Your task to perform on an android device: Go to internet settings Image 0: 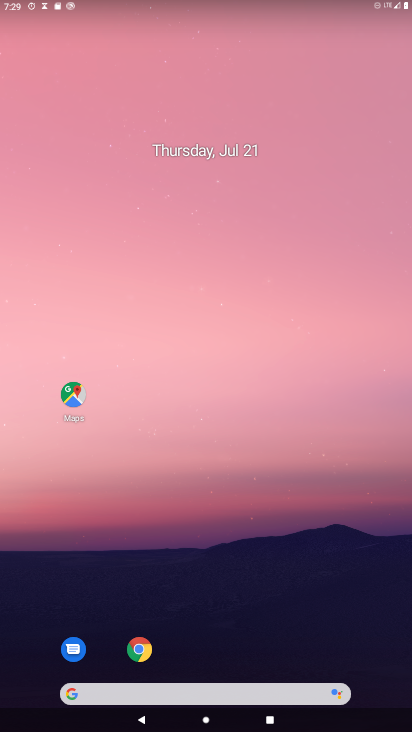
Step 0: drag from (346, 625) to (182, 30)
Your task to perform on an android device: Go to internet settings Image 1: 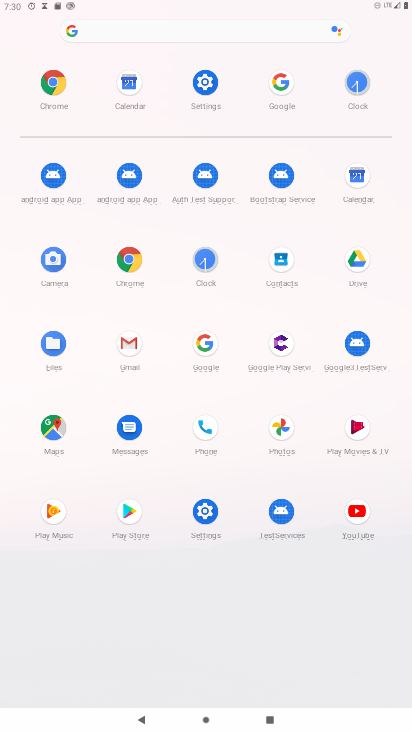
Step 1: click (200, 519)
Your task to perform on an android device: Go to internet settings Image 2: 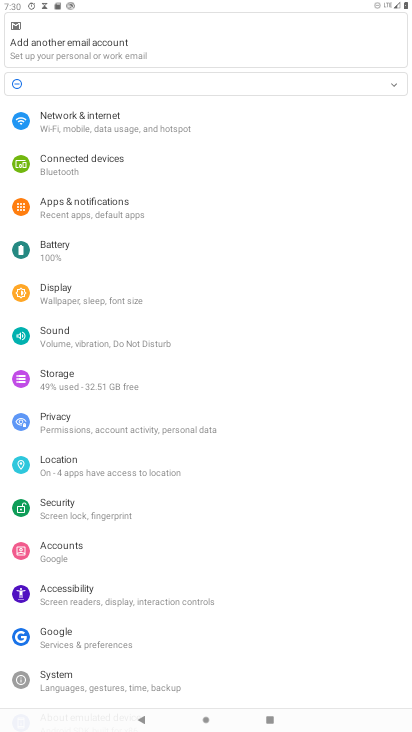
Step 2: click (137, 125)
Your task to perform on an android device: Go to internet settings Image 3: 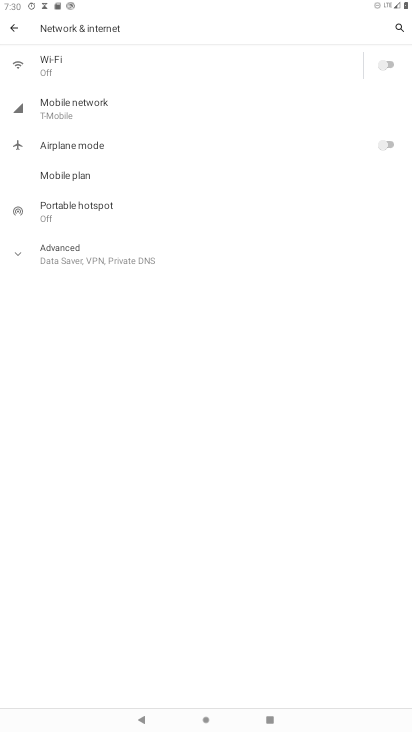
Step 3: task complete